Your task to perform on an android device: What's the news about the US president? Image 0: 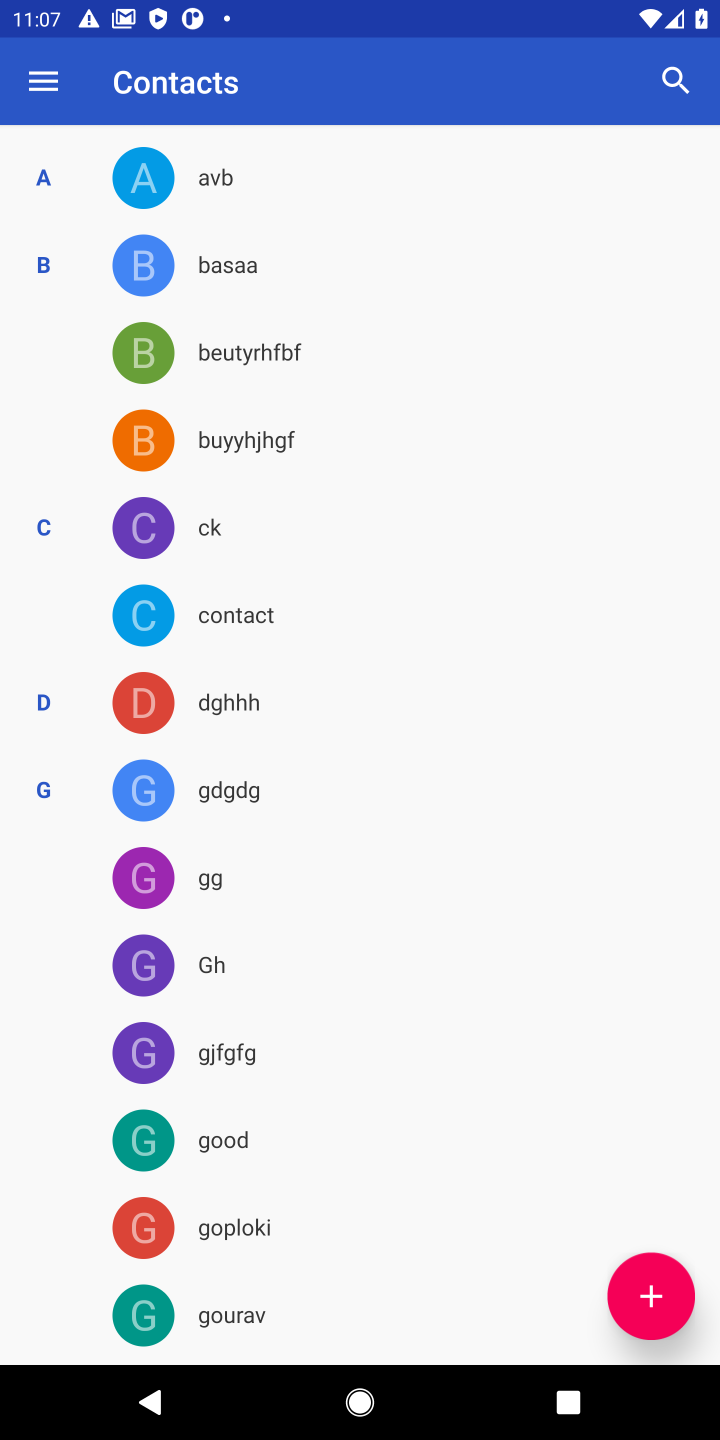
Step 0: press home button
Your task to perform on an android device: What's the news about the US president? Image 1: 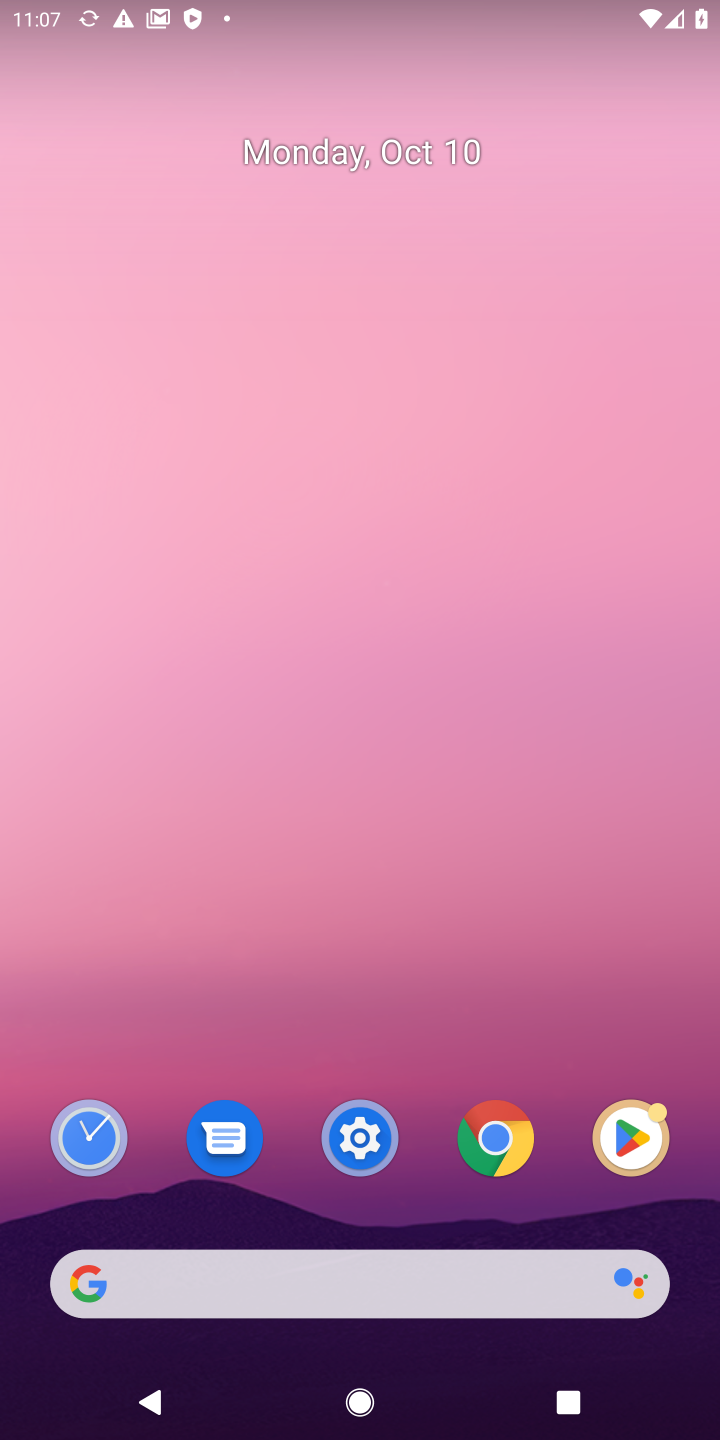
Step 1: press home button
Your task to perform on an android device: What's the news about the US president? Image 2: 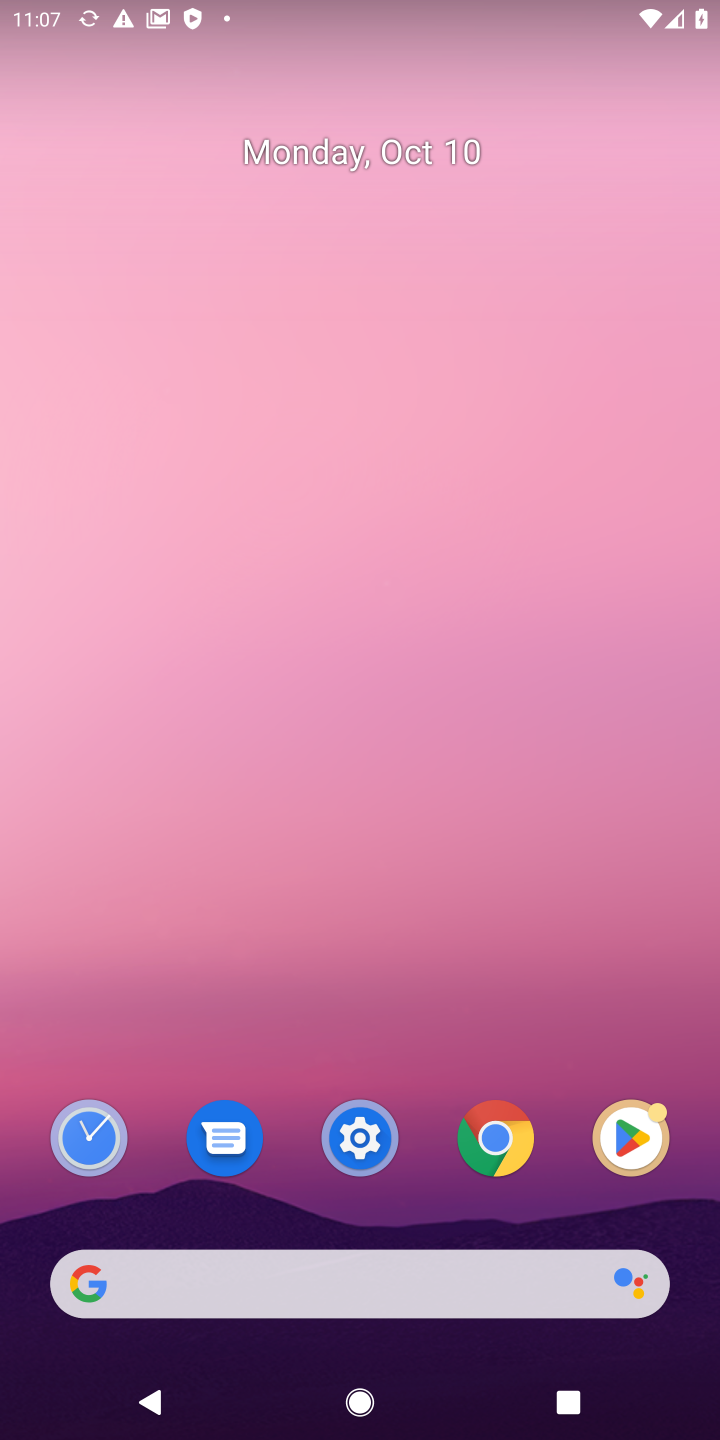
Step 2: click (69, 1280)
Your task to perform on an android device: What's the news about the US president? Image 3: 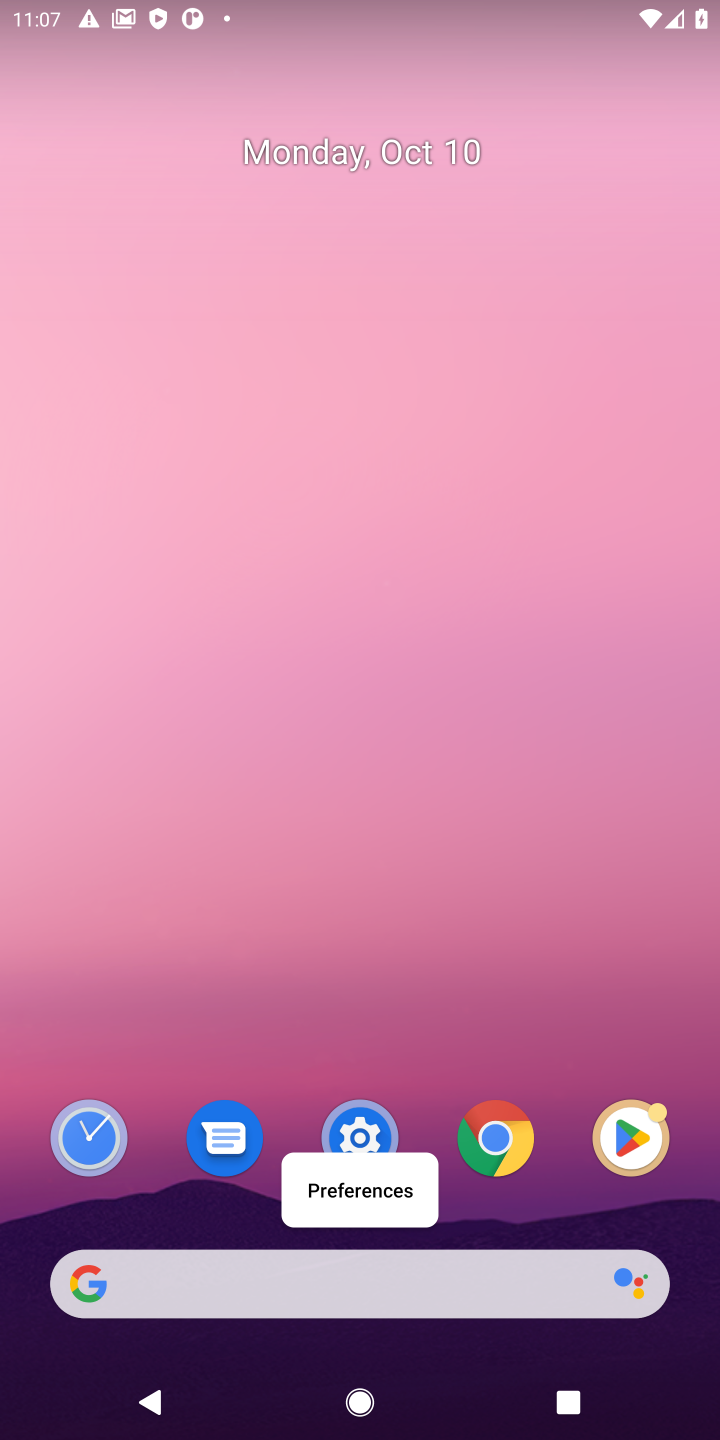
Step 3: click (79, 1276)
Your task to perform on an android device: What's the news about the US president? Image 4: 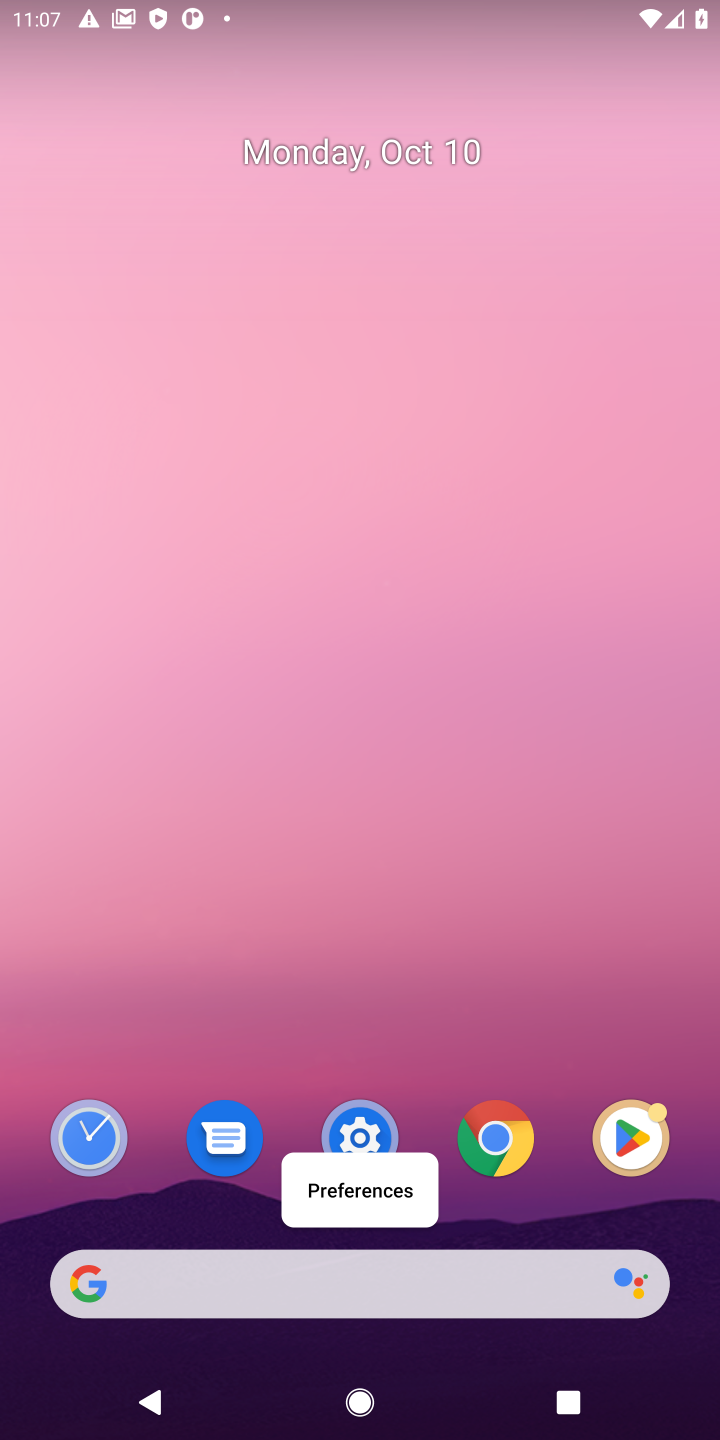
Step 4: click (81, 1291)
Your task to perform on an android device: What's the news about the US president? Image 5: 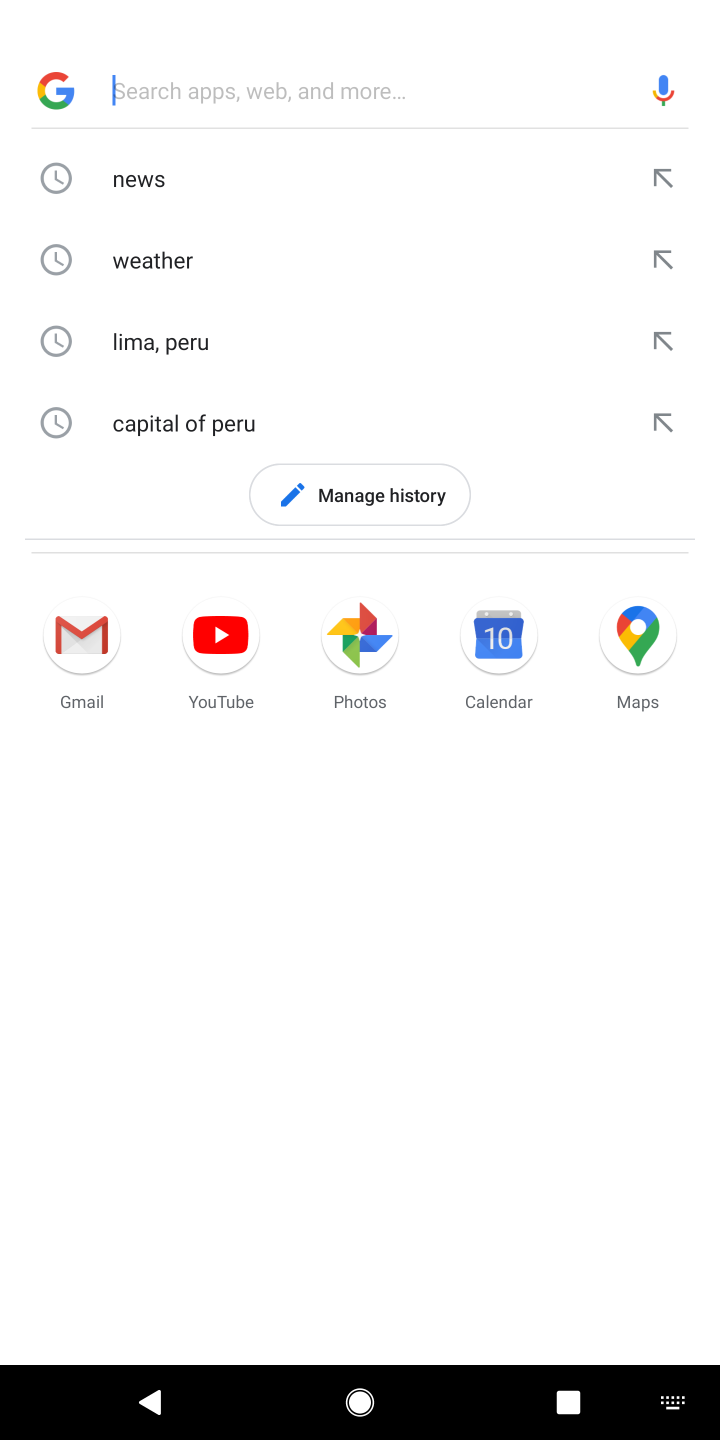
Step 5: type "news about the US president"
Your task to perform on an android device: What's the news about the US president? Image 6: 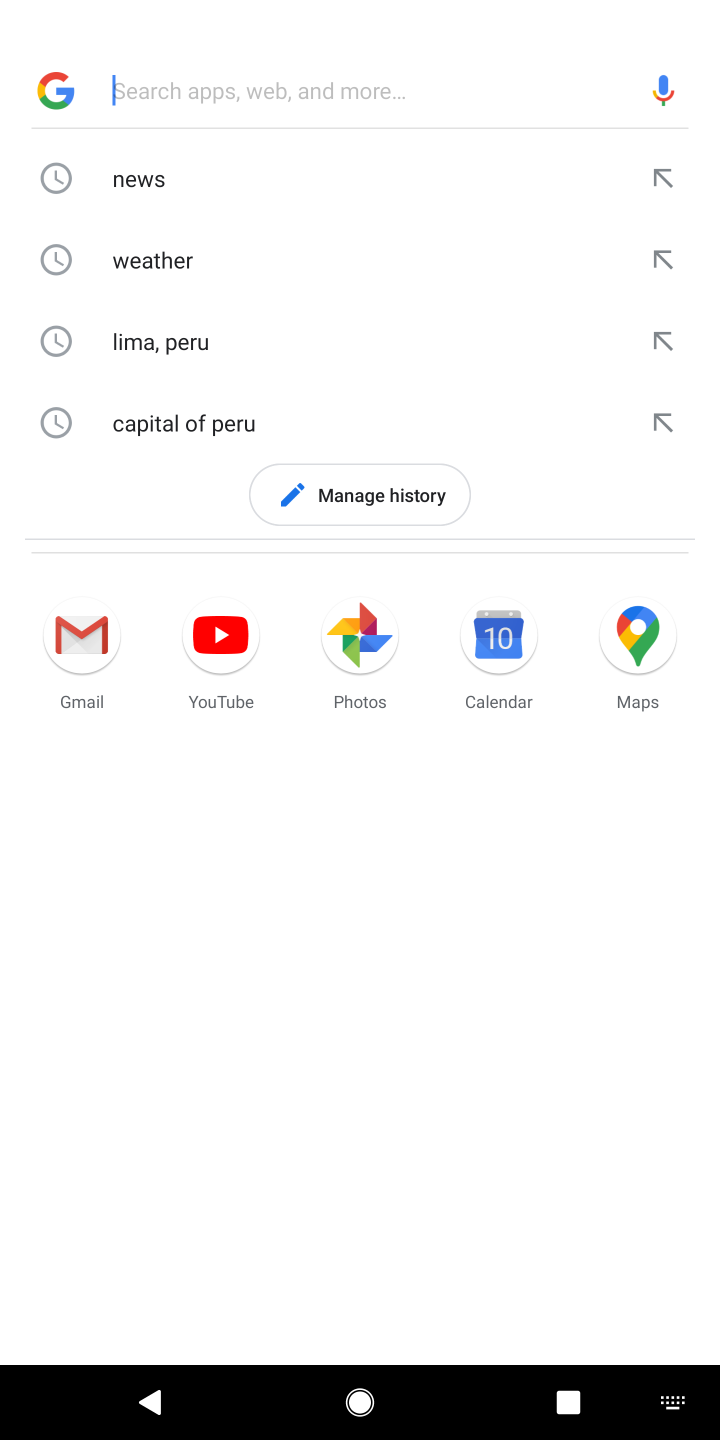
Step 6: click (195, 86)
Your task to perform on an android device: What's the news about the US president? Image 7: 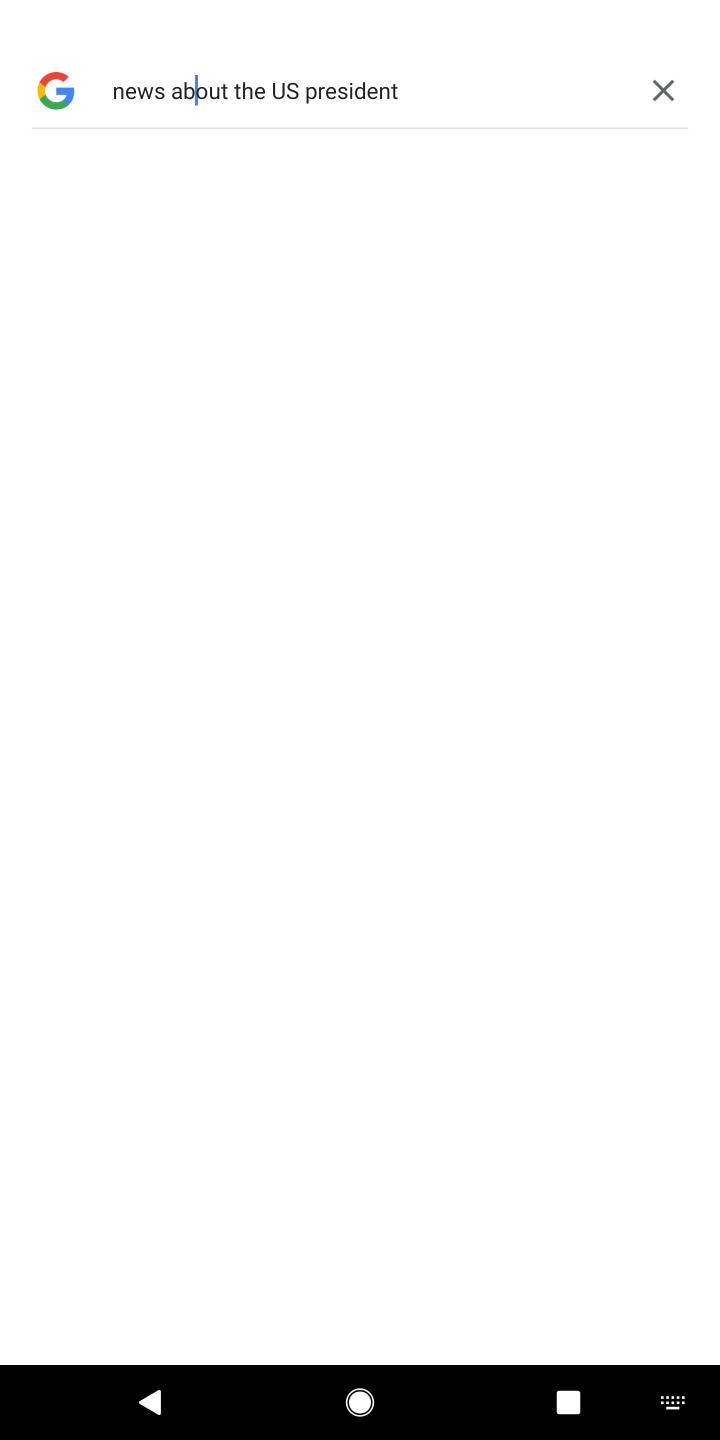
Step 7: press enter
Your task to perform on an android device: What's the news about the US president? Image 8: 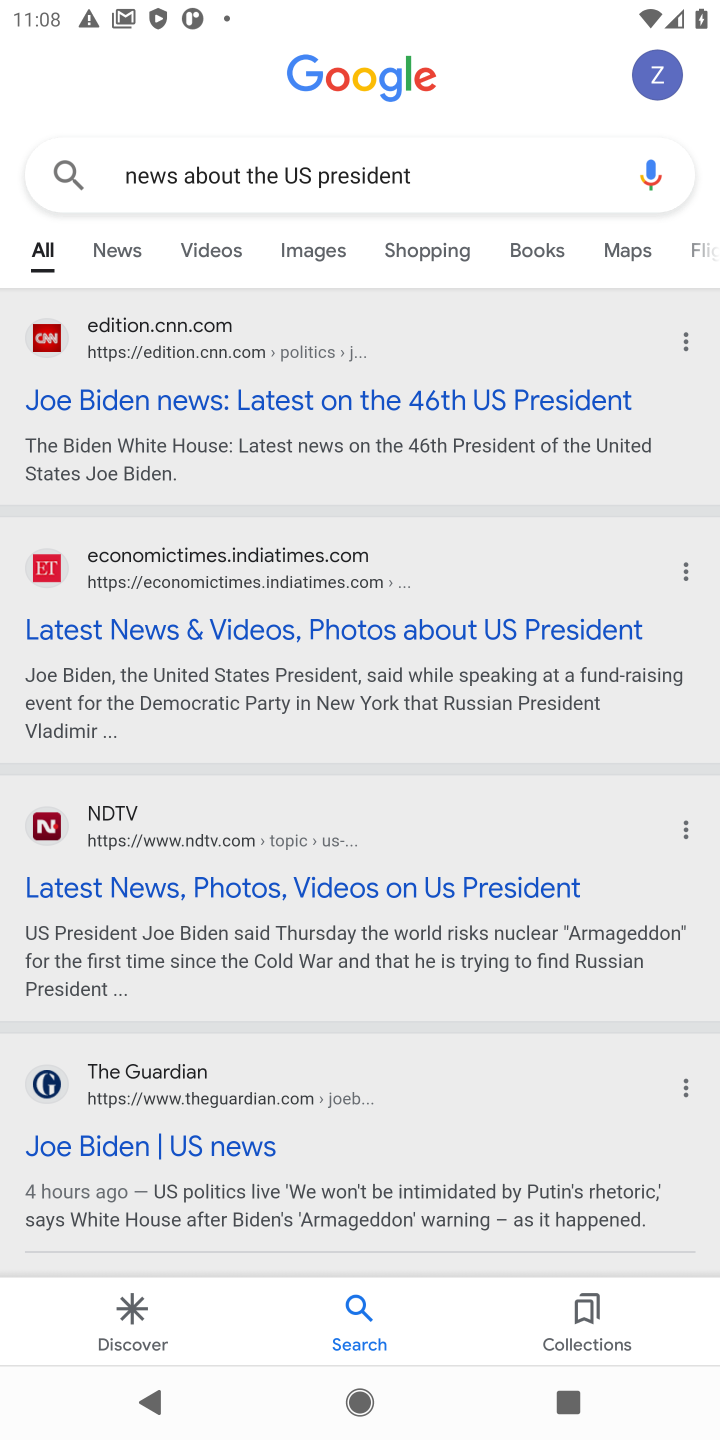
Step 8: task complete